Your task to perform on an android device: turn off priority inbox in the gmail app Image 0: 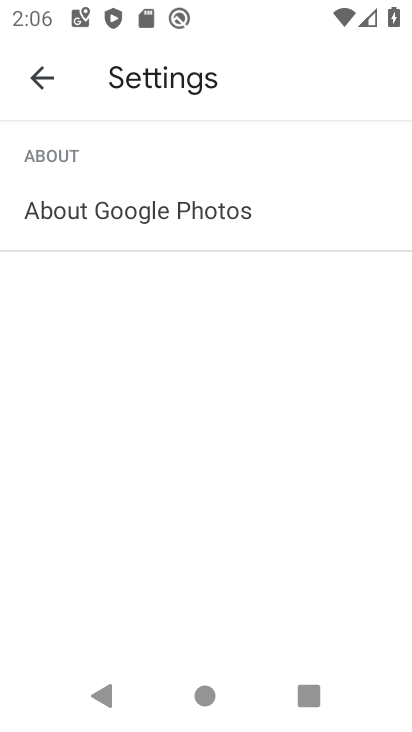
Step 0: press back button
Your task to perform on an android device: turn off priority inbox in the gmail app Image 1: 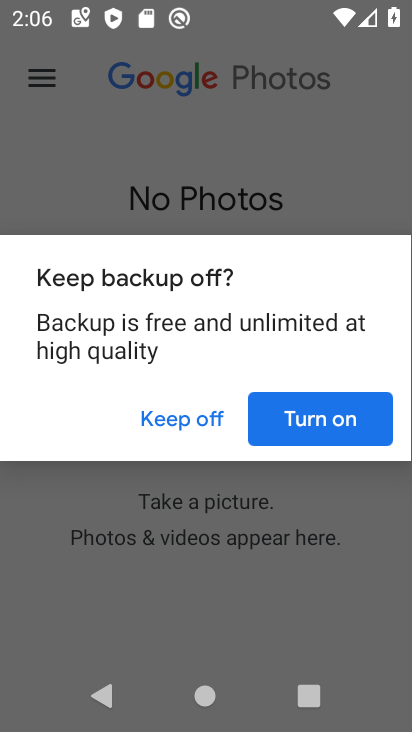
Step 1: press back button
Your task to perform on an android device: turn off priority inbox in the gmail app Image 2: 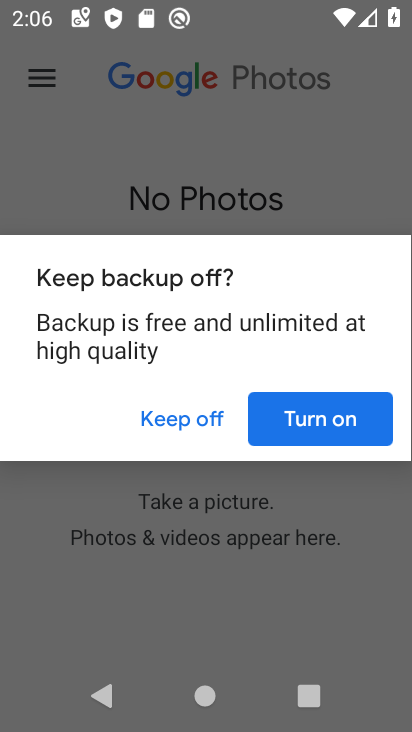
Step 2: press back button
Your task to perform on an android device: turn off priority inbox in the gmail app Image 3: 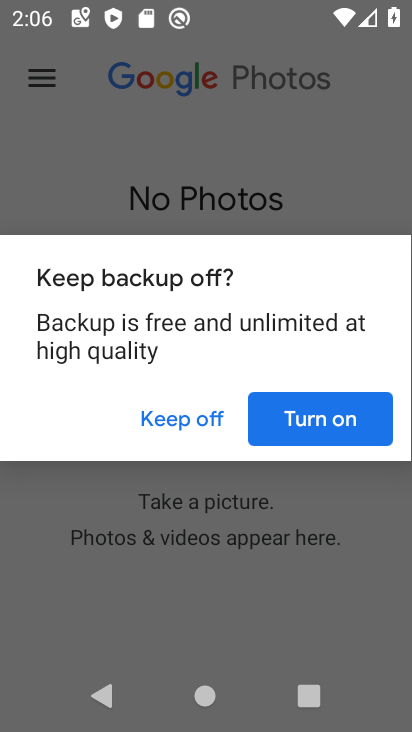
Step 3: press home button
Your task to perform on an android device: turn off priority inbox in the gmail app Image 4: 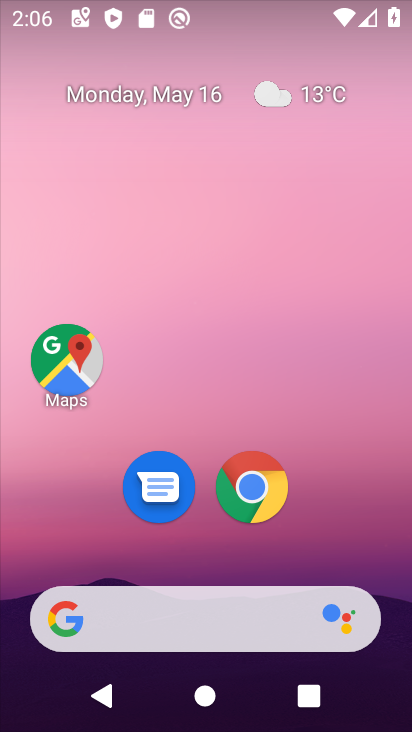
Step 4: drag from (351, 513) to (287, 36)
Your task to perform on an android device: turn off priority inbox in the gmail app Image 5: 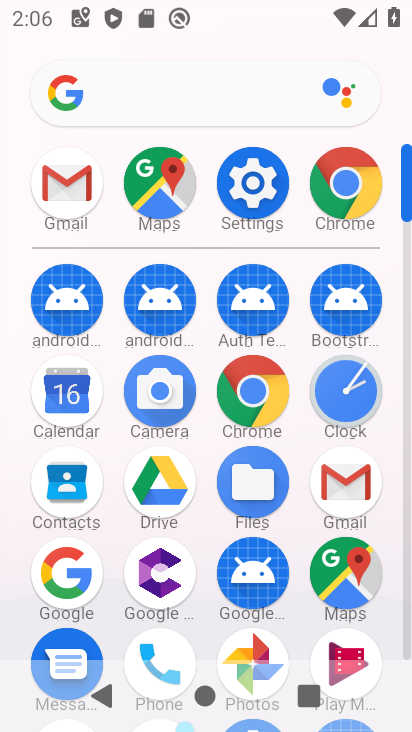
Step 5: click (344, 467)
Your task to perform on an android device: turn off priority inbox in the gmail app Image 6: 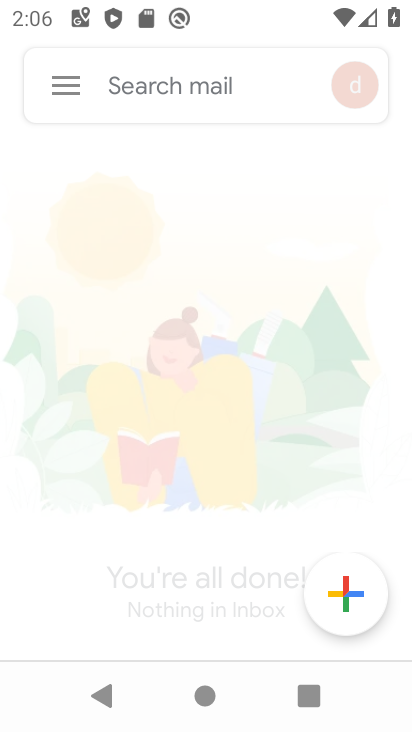
Step 6: click (65, 79)
Your task to perform on an android device: turn off priority inbox in the gmail app Image 7: 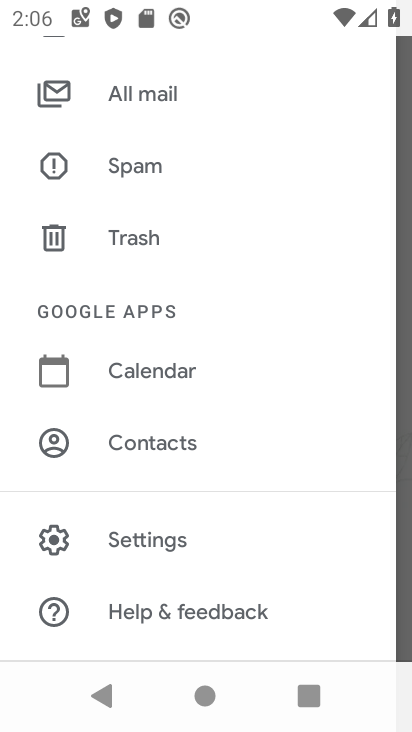
Step 7: drag from (203, 541) to (230, 65)
Your task to perform on an android device: turn off priority inbox in the gmail app Image 8: 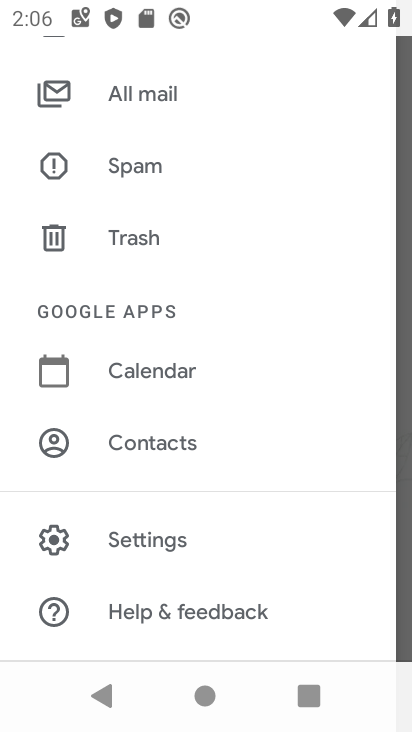
Step 8: click (136, 545)
Your task to perform on an android device: turn off priority inbox in the gmail app Image 9: 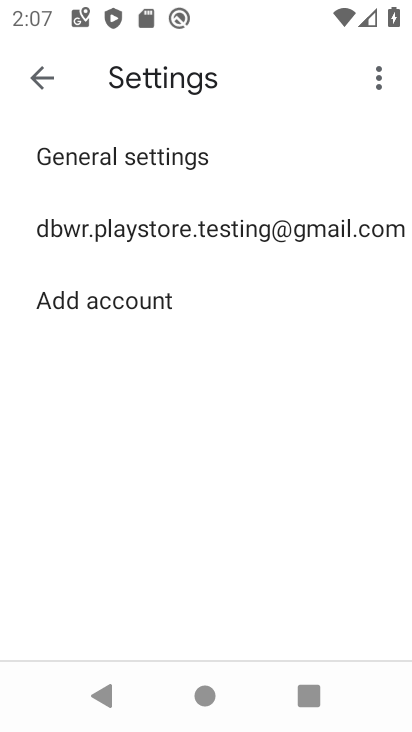
Step 9: click (109, 227)
Your task to perform on an android device: turn off priority inbox in the gmail app Image 10: 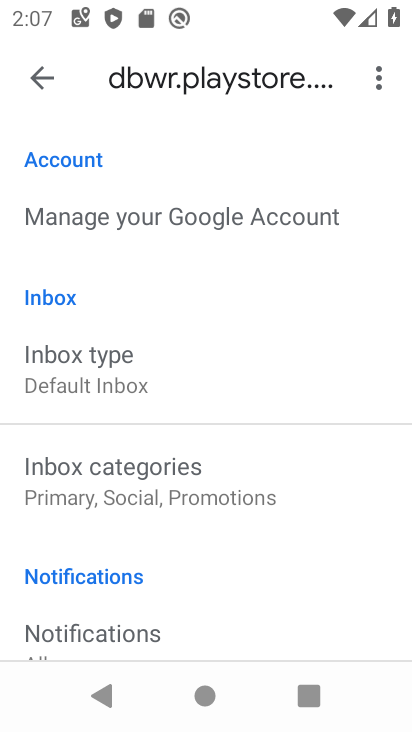
Step 10: click (151, 382)
Your task to perform on an android device: turn off priority inbox in the gmail app Image 11: 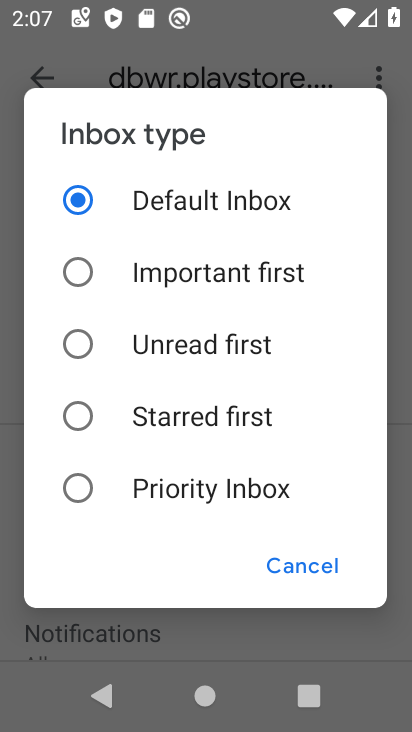
Step 11: click (181, 281)
Your task to perform on an android device: turn off priority inbox in the gmail app Image 12: 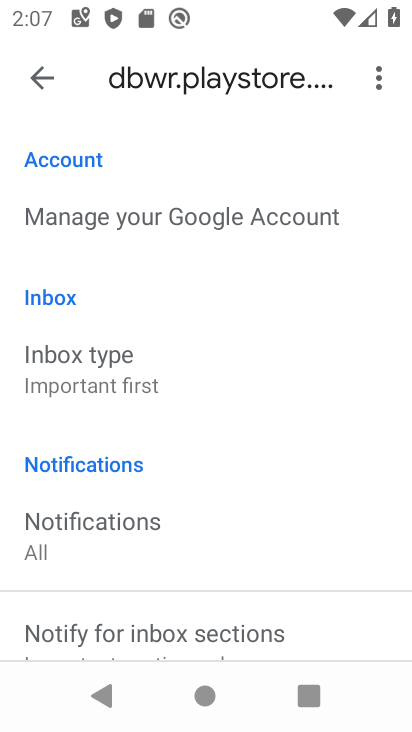
Step 12: task complete